Your task to perform on an android device: Open Wikipedia Image 0: 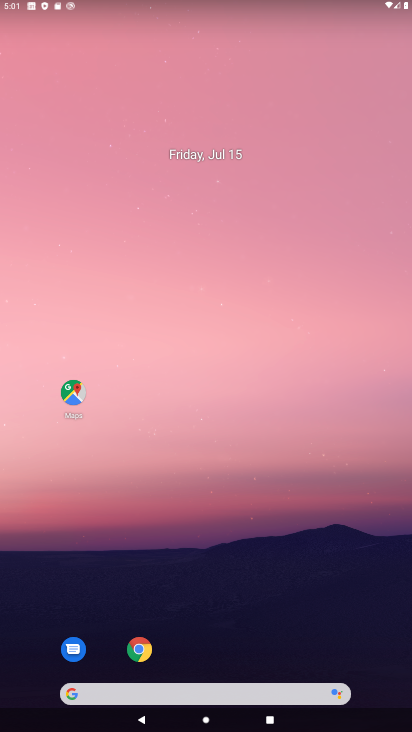
Step 0: click (140, 648)
Your task to perform on an android device: Open Wikipedia Image 1: 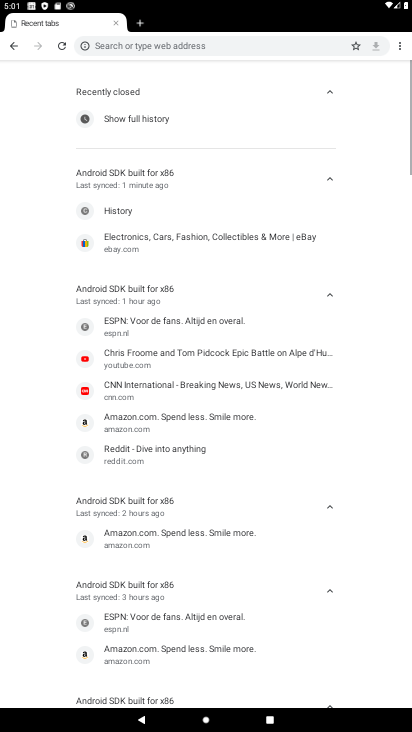
Step 1: click (226, 49)
Your task to perform on an android device: Open Wikipedia Image 2: 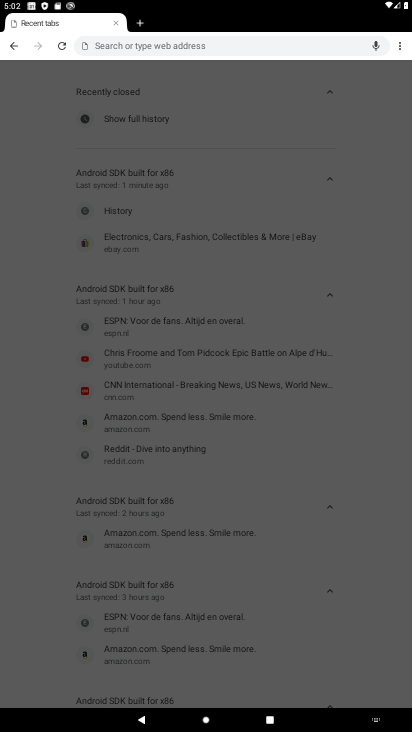
Step 2: type "Wikipedia"
Your task to perform on an android device: Open Wikipedia Image 3: 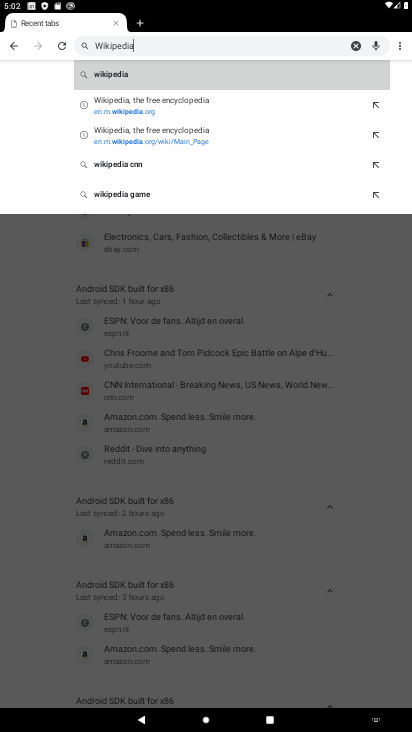
Step 3: click (110, 78)
Your task to perform on an android device: Open Wikipedia Image 4: 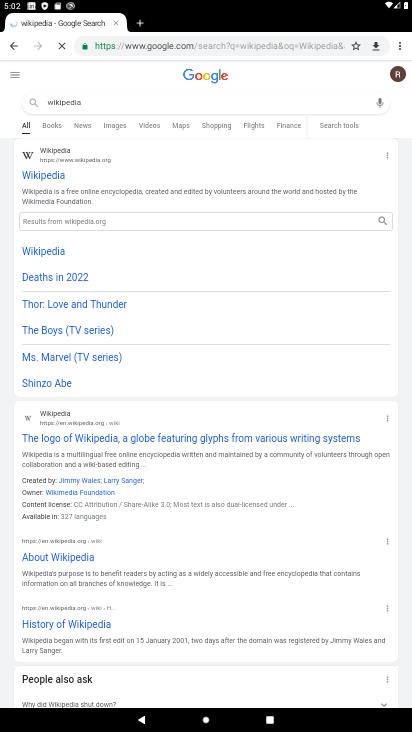
Step 4: click (58, 178)
Your task to perform on an android device: Open Wikipedia Image 5: 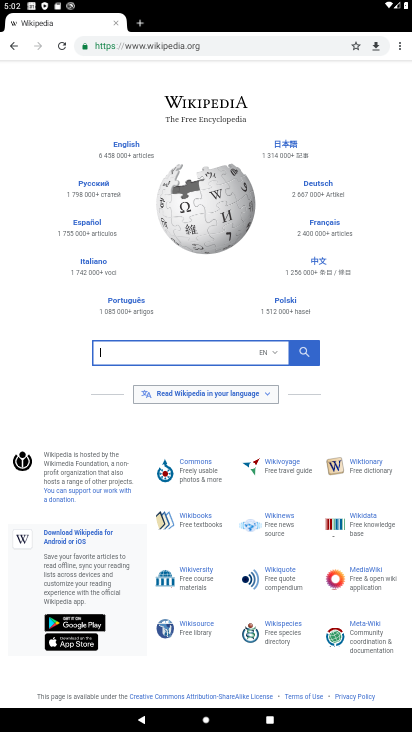
Step 5: task complete